Your task to perform on an android device: turn off data saver in the chrome app Image 0: 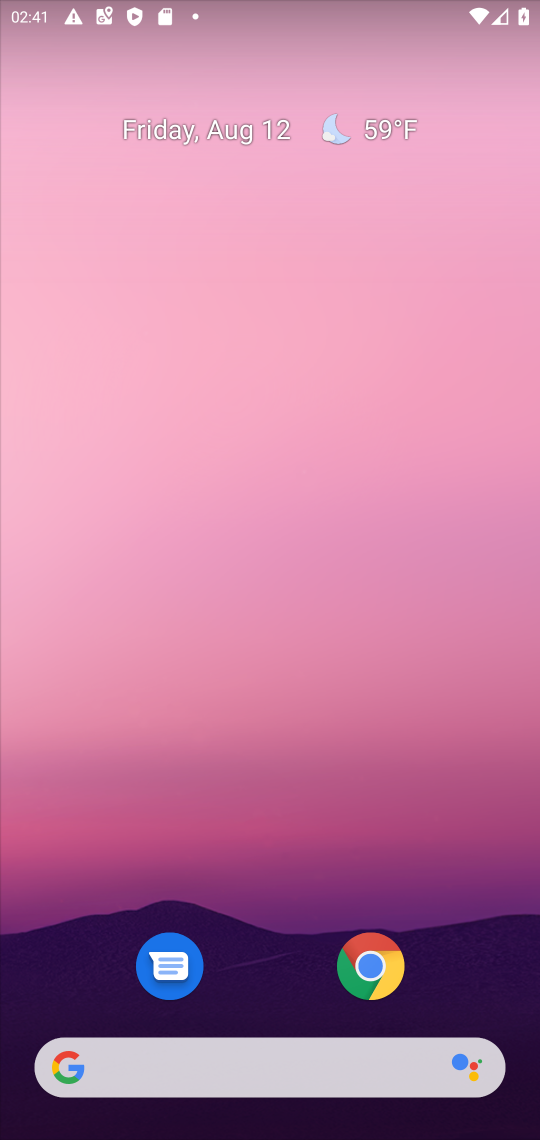
Step 0: drag from (290, 747) to (359, 141)
Your task to perform on an android device: turn off data saver in the chrome app Image 1: 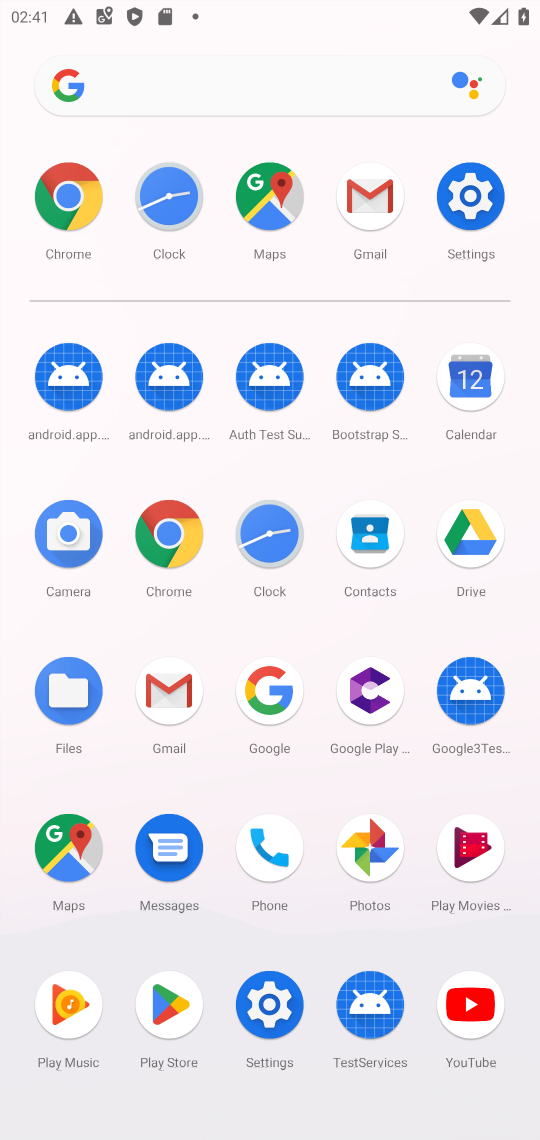
Step 1: click (169, 533)
Your task to perform on an android device: turn off data saver in the chrome app Image 2: 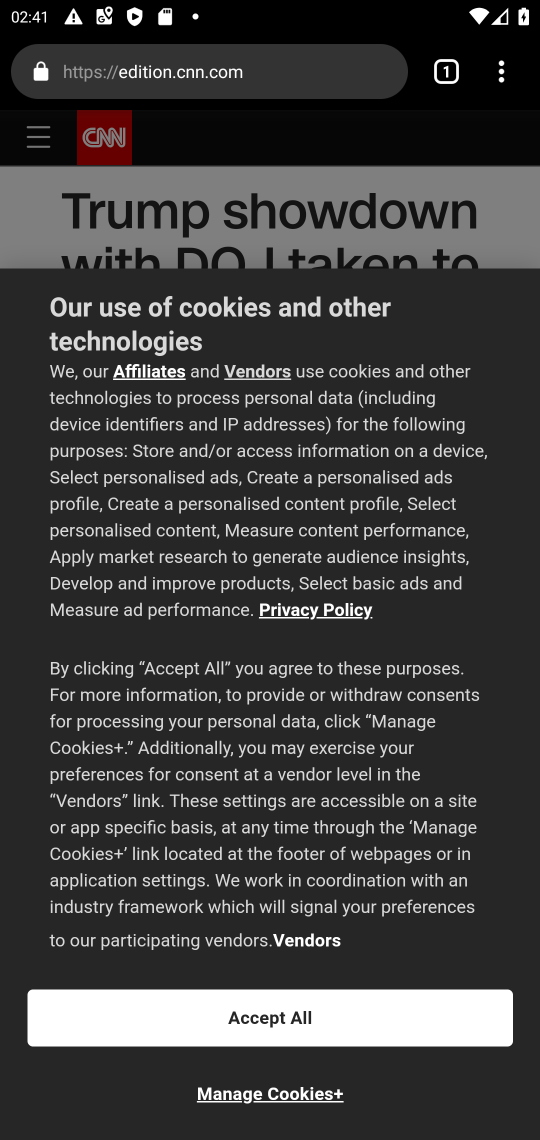
Step 2: drag from (493, 71) to (231, 823)
Your task to perform on an android device: turn off data saver in the chrome app Image 3: 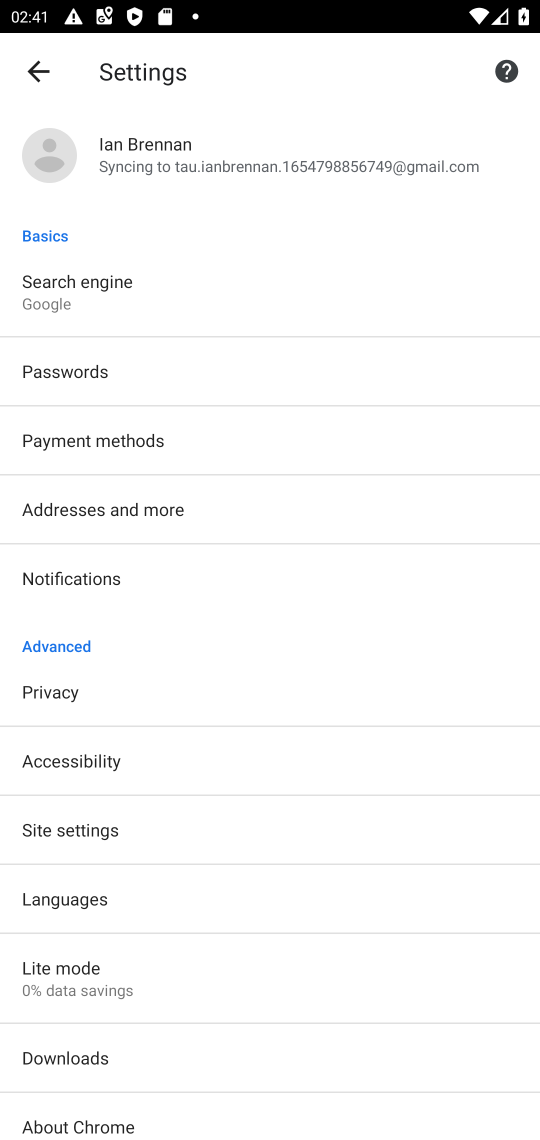
Step 3: drag from (195, 1067) to (233, 607)
Your task to perform on an android device: turn off data saver in the chrome app Image 4: 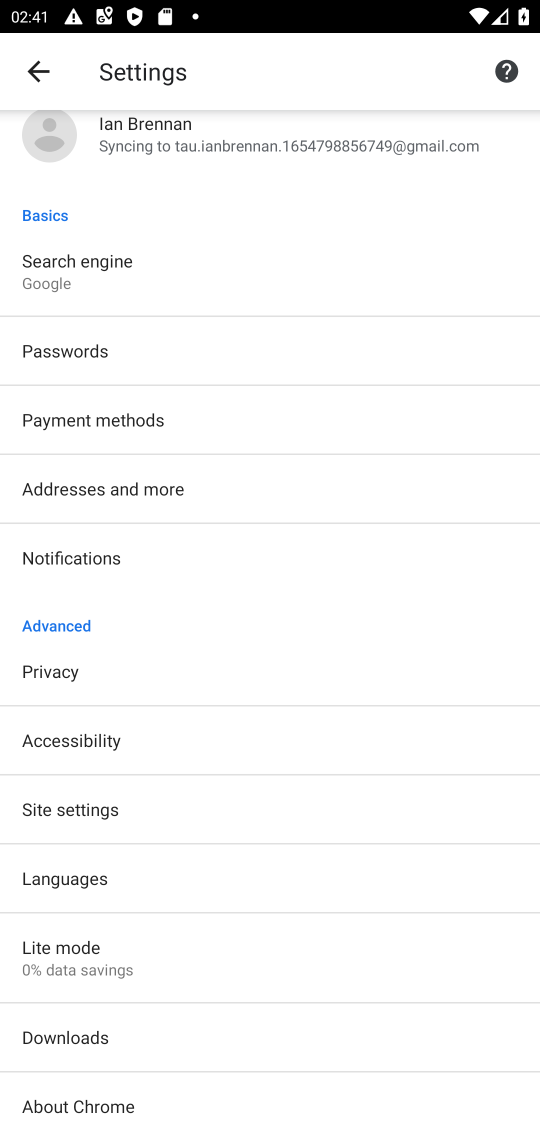
Step 4: click (79, 952)
Your task to perform on an android device: turn off data saver in the chrome app Image 5: 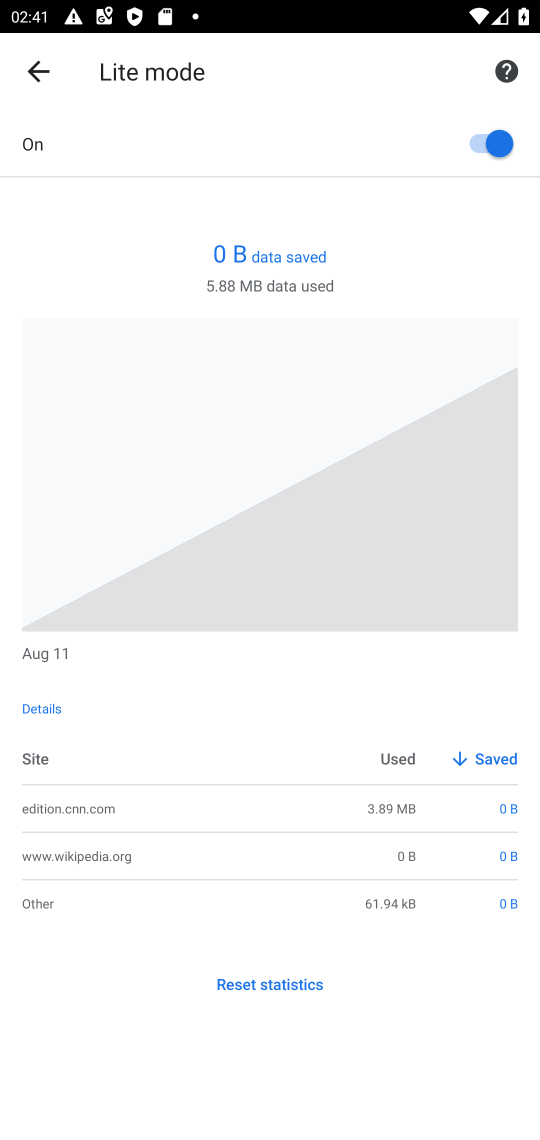
Step 5: click (511, 143)
Your task to perform on an android device: turn off data saver in the chrome app Image 6: 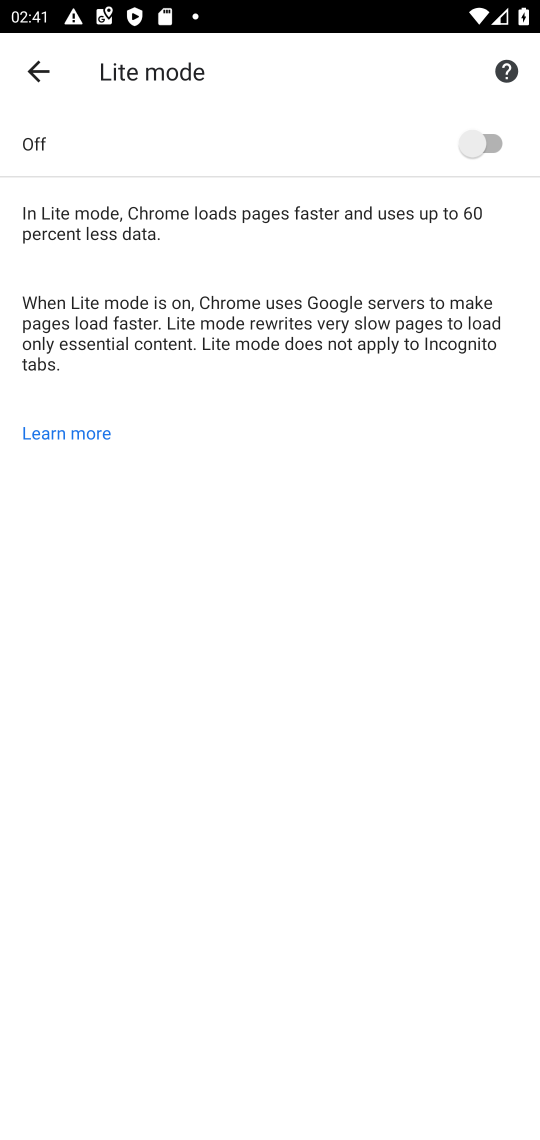
Step 6: task complete